Your task to perform on an android device: clear all cookies in the chrome app Image 0: 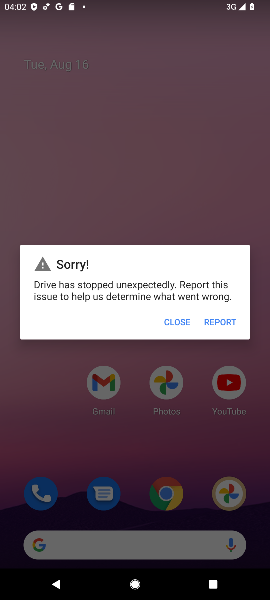
Step 0: press home button
Your task to perform on an android device: clear all cookies in the chrome app Image 1: 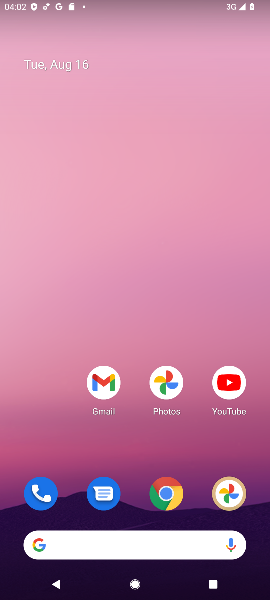
Step 1: drag from (62, 466) to (82, 164)
Your task to perform on an android device: clear all cookies in the chrome app Image 2: 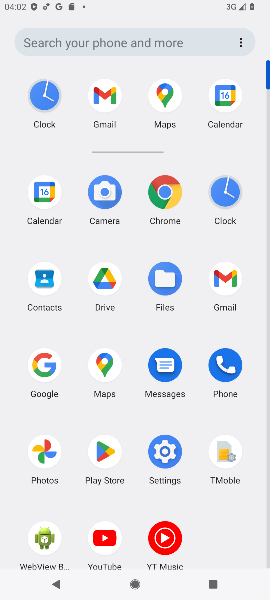
Step 2: click (165, 194)
Your task to perform on an android device: clear all cookies in the chrome app Image 3: 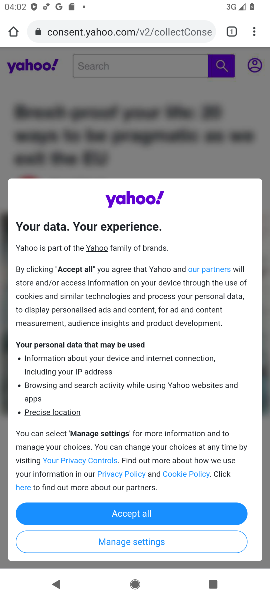
Step 3: click (255, 32)
Your task to perform on an android device: clear all cookies in the chrome app Image 4: 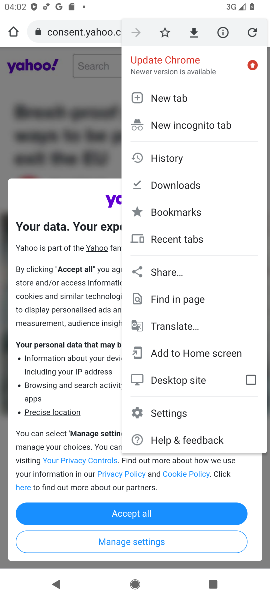
Step 4: click (201, 413)
Your task to perform on an android device: clear all cookies in the chrome app Image 5: 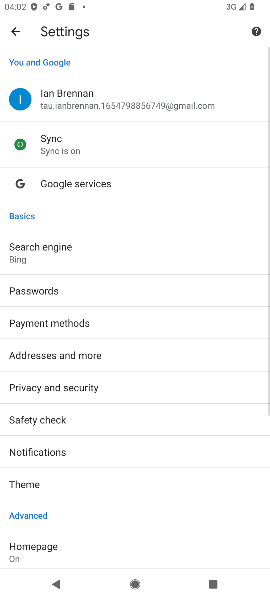
Step 5: drag from (196, 401) to (193, 324)
Your task to perform on an android device: clear all cookies in the chrome app Image 6: 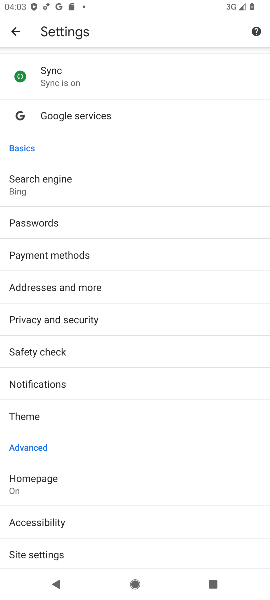
Step 6: drag from (187, 422) to (193, 332)
Your task to perform on an android device: clear all cookies in the chrome app Image 7: 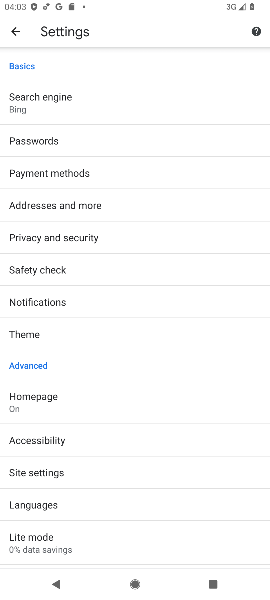
Step 7: drag from (171, 421) to (174, 327)
Your task to perform on an android device: clear all cookies in the chrome app Image 8: 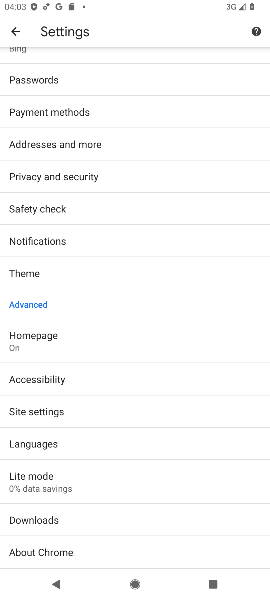
Step 8: drag from (167, 433) to (181, 288)
Your task to perform on an android device: clear all cookies in the chrome app Image 9: 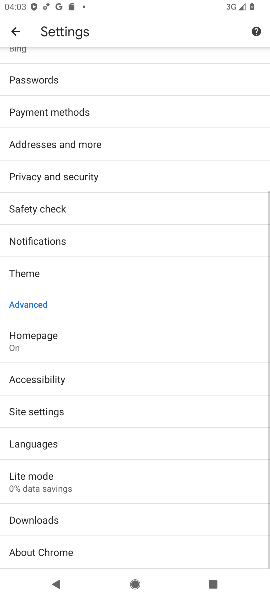
Step 9: click (162, 172)
Your task to perform on an android device: clear all cookies in the chrome app Image 10: 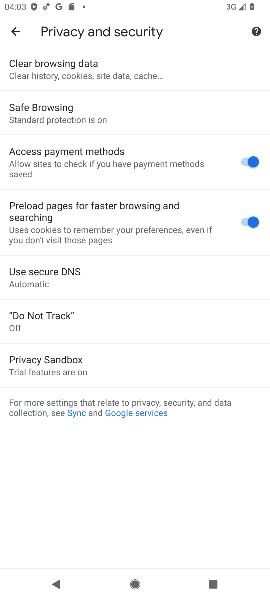
Step 10: click (124, 68)
Your task to perform on an android device: clear all cookies in the chrome app Image 11: 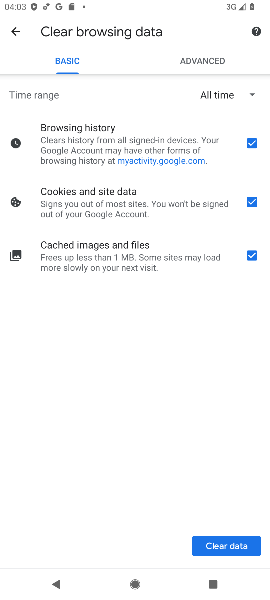
Step 11: click (216, 547)
Your task to perform on an android device: clear all cookies in the chrome app Image 12: 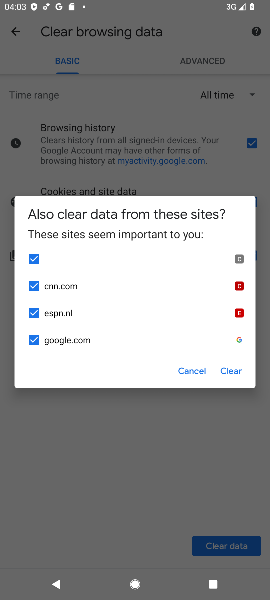
Step 12: click (230, 362)
Your task to perform on an android device: clear all cookies in the chrome app Image 13: 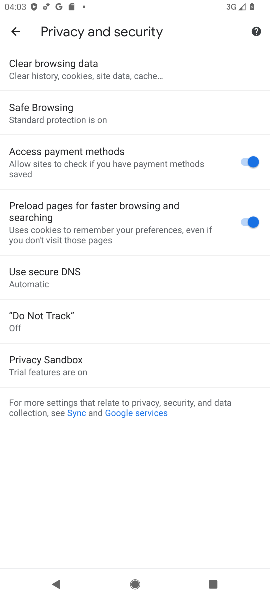
Step 13: task complete